Your task to perform on an android device: add a label to a message in the gmail app Image 0: 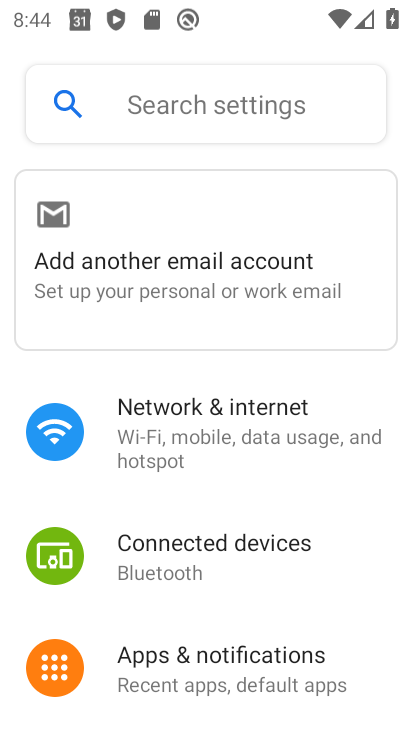
Step 0: press home button
Your task to perform on an android device: add a label to a message in the gmail app Image 1: 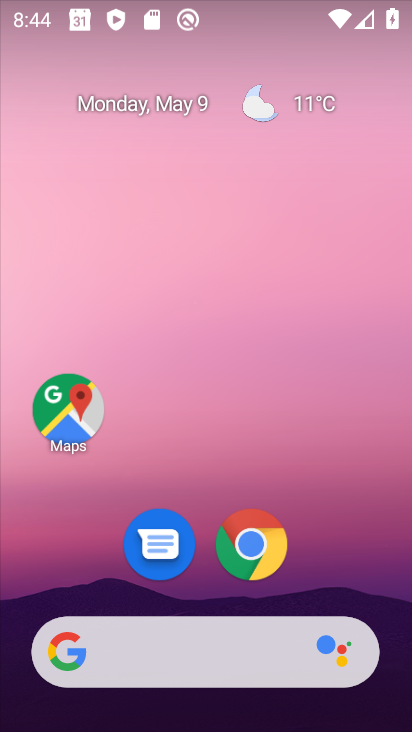
Step 1: drag from (392, 543) to (353, 62)
Your task to perform on an android device: add a label to a message in the gmail app Image 2: 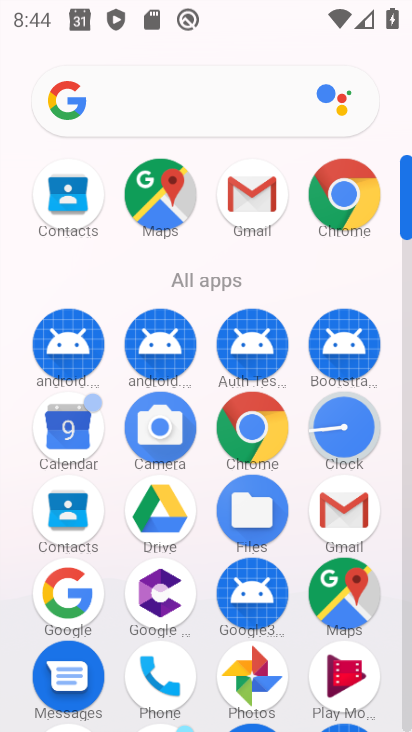
Step 2: click (336, 510)
Your task to perform on an android device: add a label to a message in the gmail app Image 3: 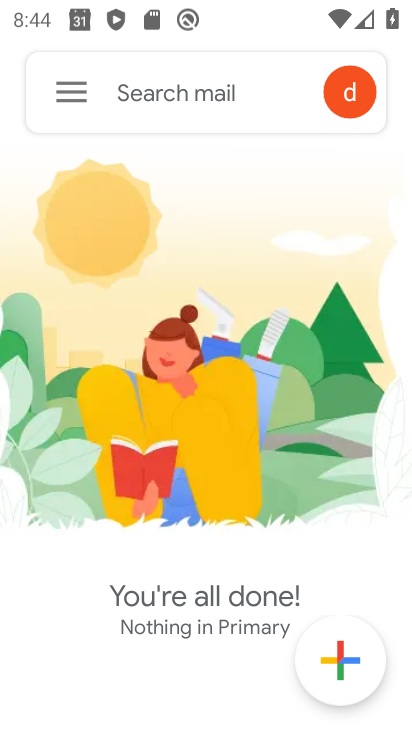
Step 3: click (63, 87)
Your task to perform on an android device: add a label to a message in the gmail app Image 4: 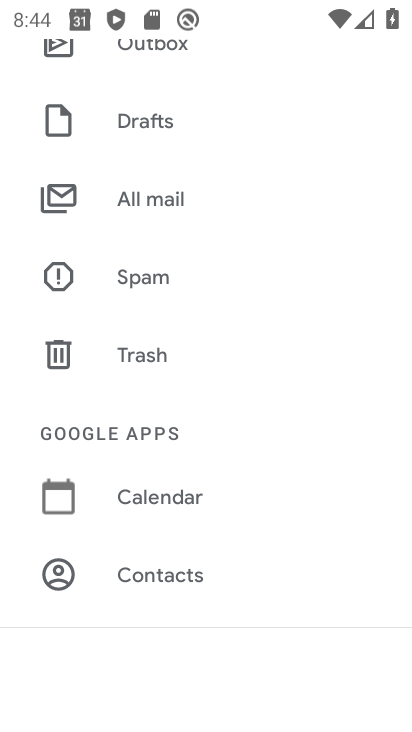
Step 4: drag from (312, 171) to (356, 727)
Your task to perform on an android device: add a label to a message in the gmail app Image 5: 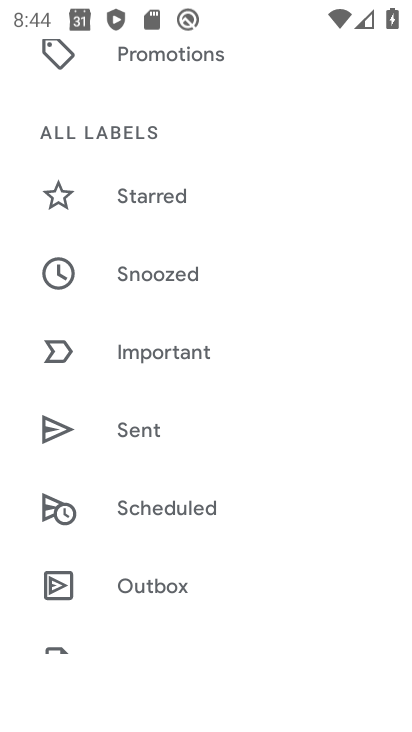
Step 5: drag from (329, 438) to (342, 569)
Your task to perform on an android device: add a label to a message in the gmail app Image 6: 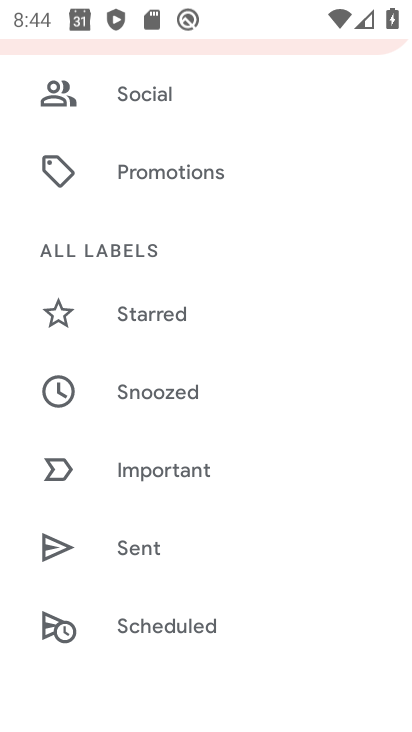
Step 6: drag from (323, 209) to (310, 555)
Your task to perform on an android device: add a label to a message in the gmail app Image 7: 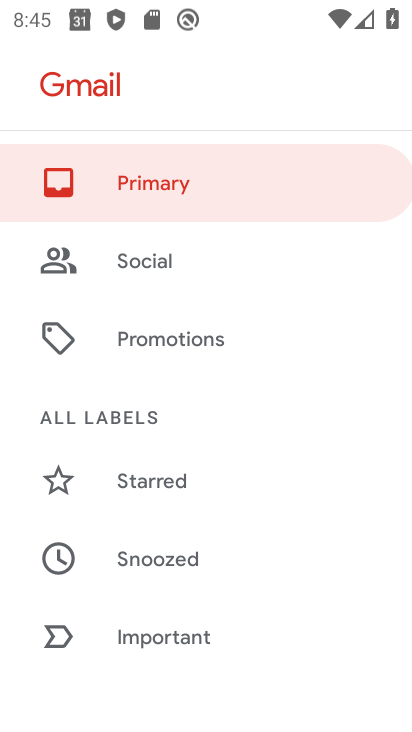
Step 7: drag from (376, 400) to (390, 609)
Your task to perform on an android device: add a label to a message in the gmail app Image 8: 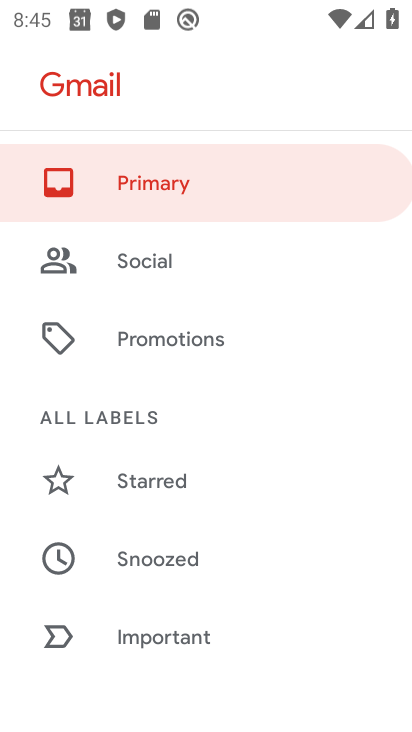
Step 8: click (195, 187)
Your task to perform on an android device: add a label to a message in the gmail app Image 9: 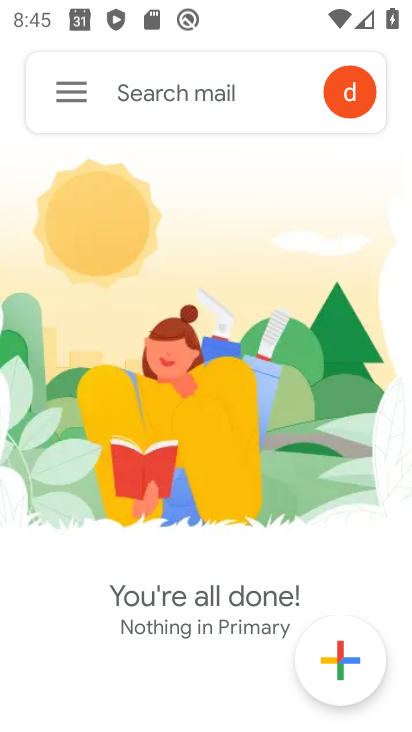
Step 9: task complete